Your task to perform on an android device: toggle notification dots Image 0: 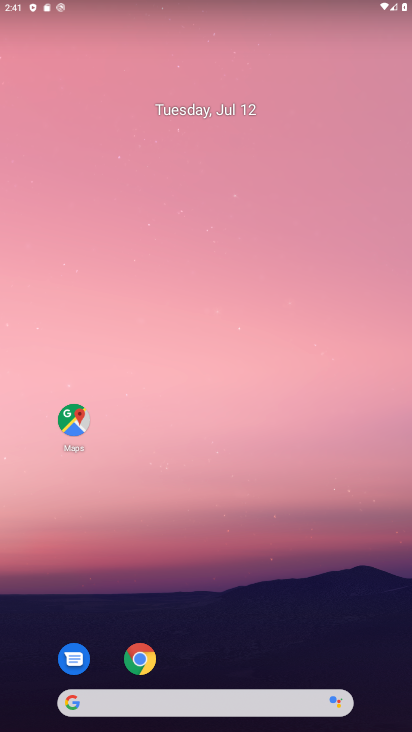
Step 0: drag from (316, 721) to (101, 10)
Your task to perform on an android device: toggle notification dots Image 1: 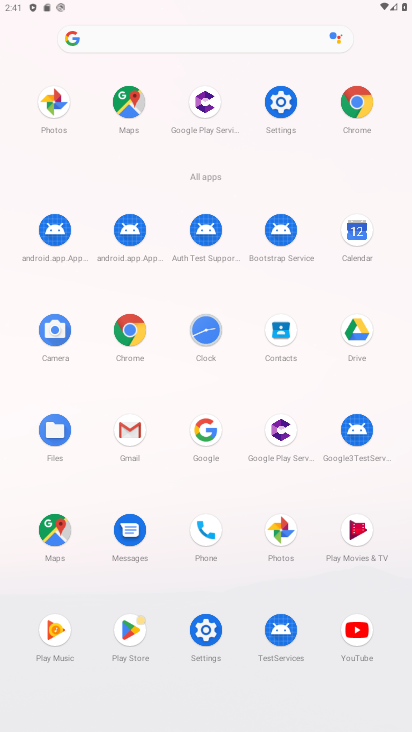
Step 1: click (259, 90)
Your task to perform on an android device: toggle notification dots Image 2: 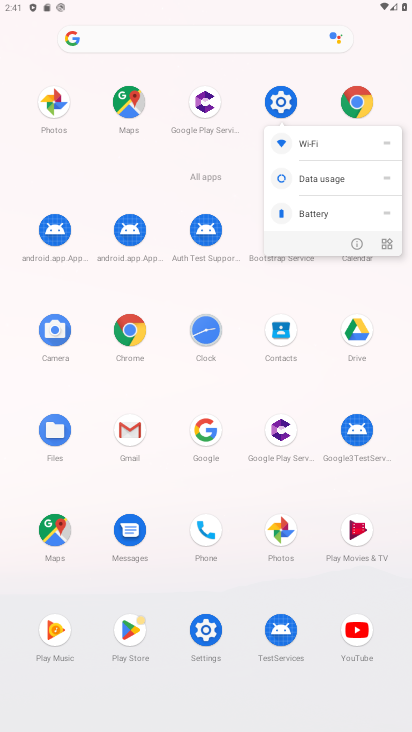
Step 2: click (260, 92)
Your task to perform on an android device: toggle notification dots Image 3: 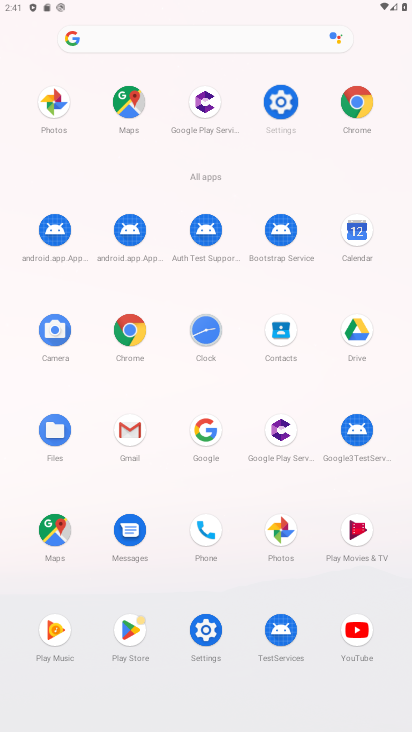
Step 3: click (261, 93)
Your task to perform on an android device: toggle notification dots Image 4: 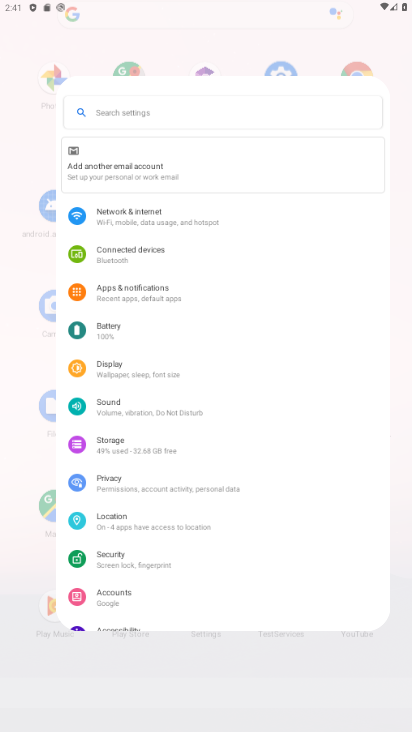
Step 4: click (262, 94)
Your task to perform on an android device: toggle notification dots Image 5: 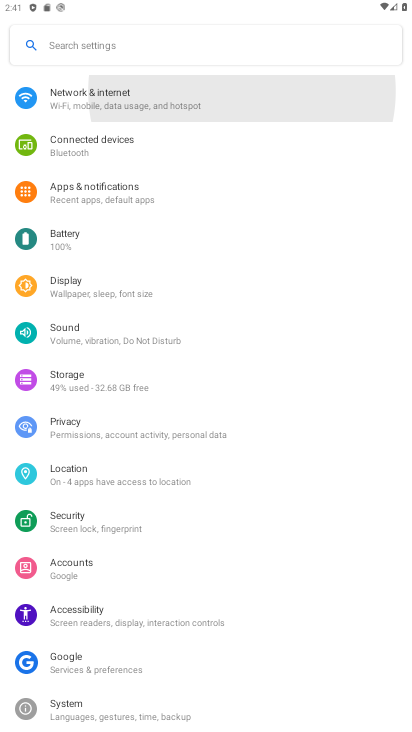
Step 5: click (266, 107)
Your task to perform on an android device: toggle notification dots Image 6: 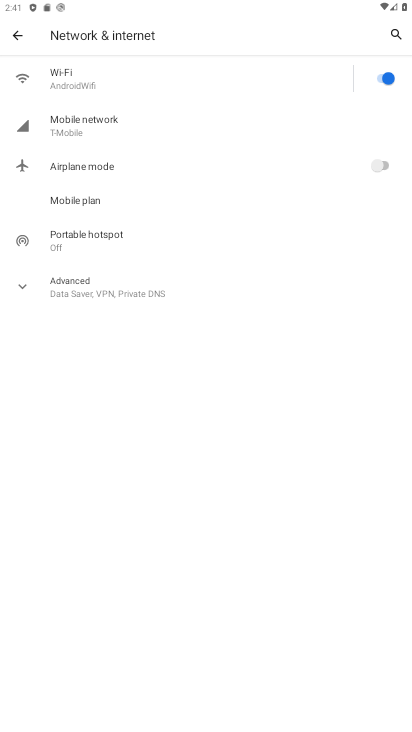
Step 6: click (29, 29)
Your task to perform on an android device: toggle notification dots Image 7: 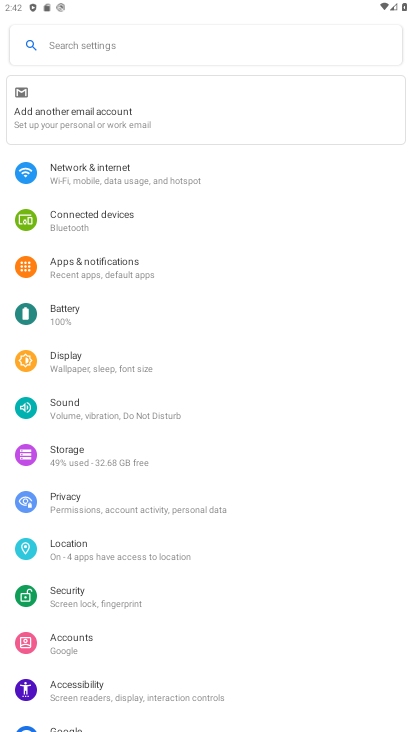
Step 7: click (98, 277)
Your task to perform on an android device: toggle notification dots Image 8: 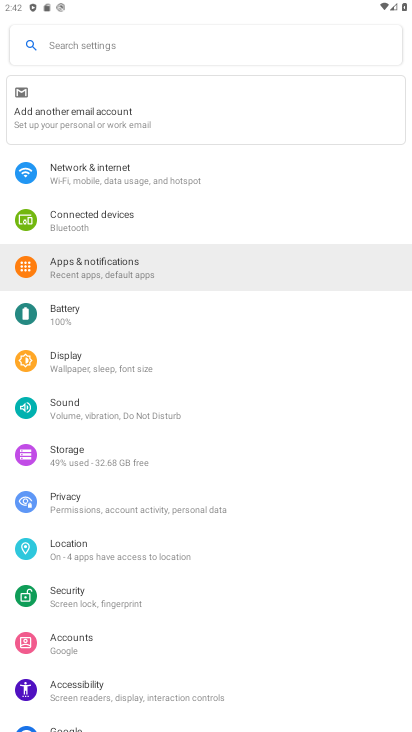
Step 8: click (98, 277)
Your task to perform on an android device: toggle notification dots Image 9: 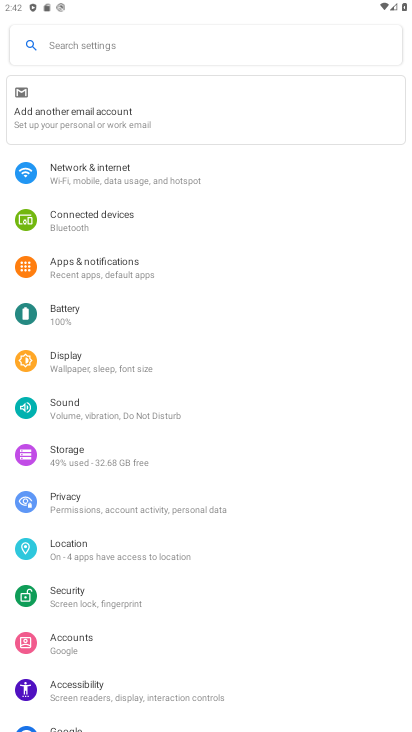
Step 9: click (98, 277)
Your task to perform on an android device: toggle notification dots Image 10: 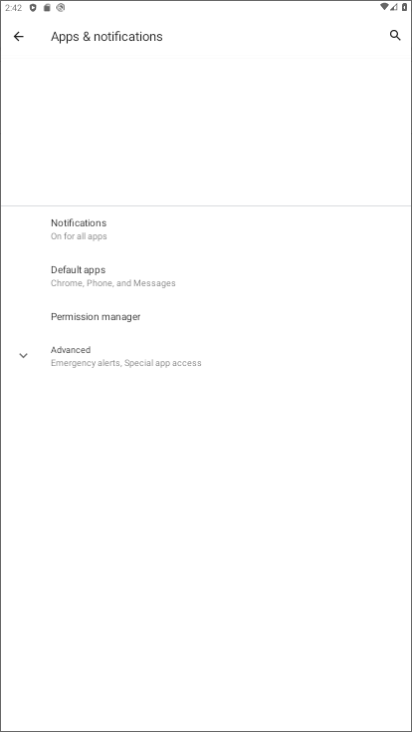
Step 10: click (100, 276)
Your task to perform on an android device: toggle notification dots Image 11: 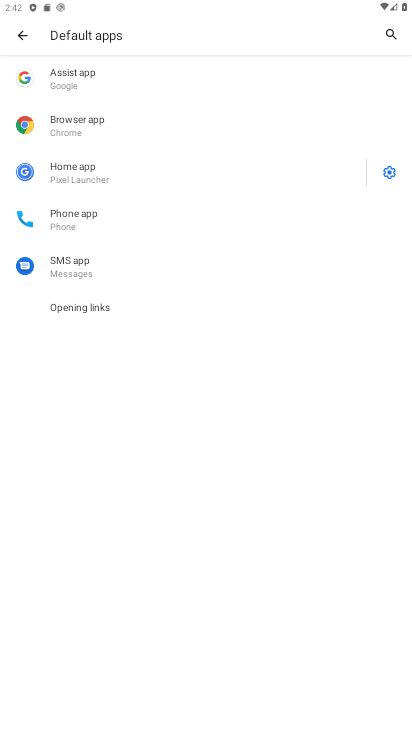
Step 11: click (27, 31)
Your task to perform on an android device: toggle notification dots Image 12: 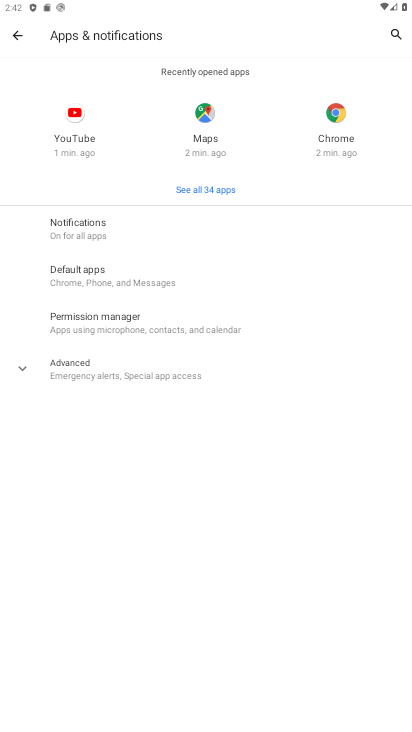
Step 12: click (85, 370)
Your task to perform on an android device: toggle notification dots Image 13: 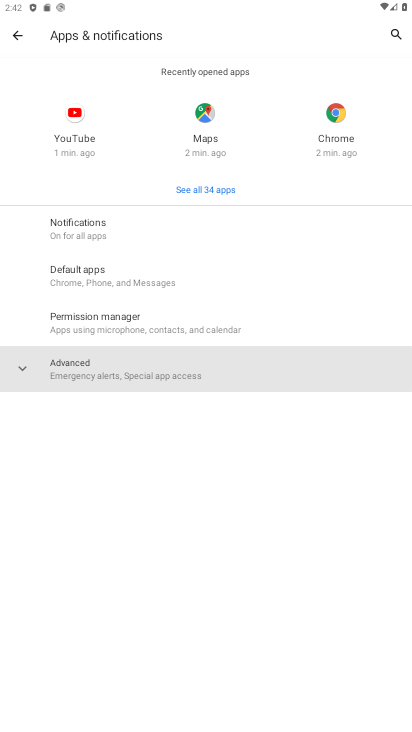
Step 13: click (85, 370)
Your task to perform on an android device: toggle notification dots Image 14: 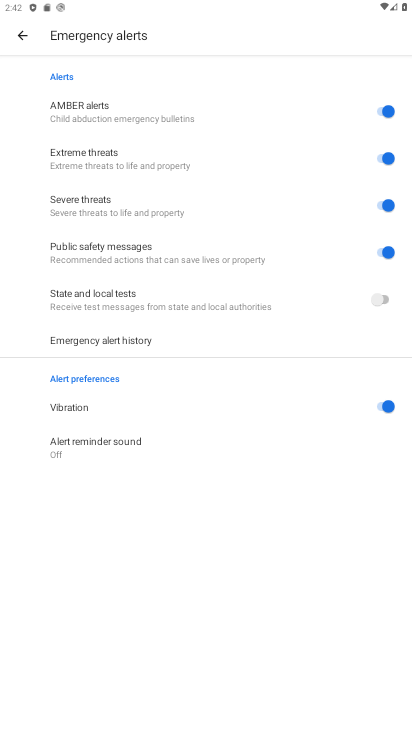
Step 14: click (16, 36)
Your task to perform on an android device: toggle notification dots Image 15: 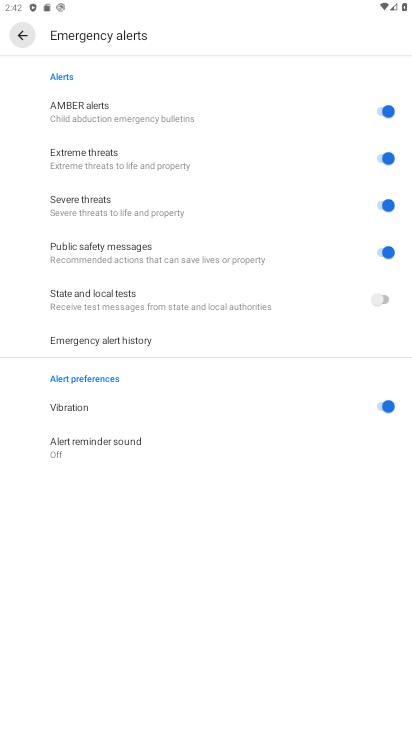
Step 15: click (23, 54)
Your task to perform on an android device: toggle notification dots Image 16: 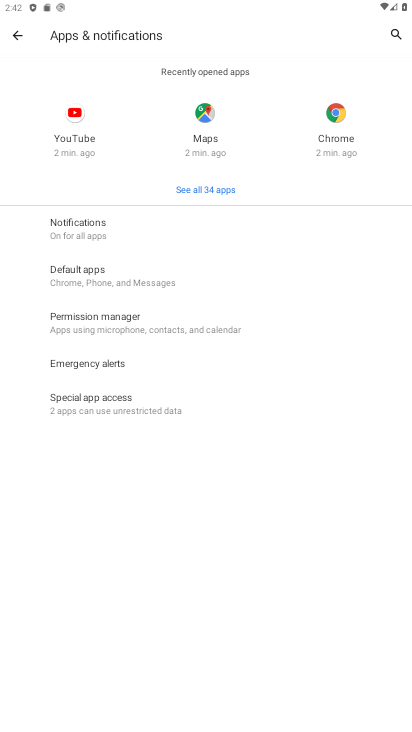
Step 16: click (85, 226)
Your task to perform on an android device: toggle notification dots Image 17: 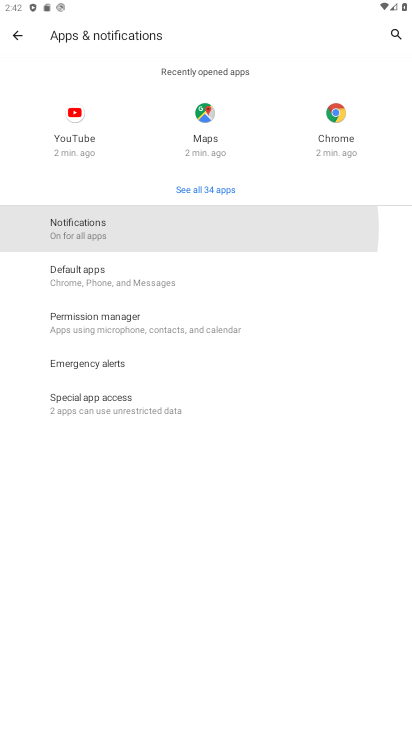
Step 17: click (84, 226)
Your task to perform on an android device: toggle notification dots Image 18: 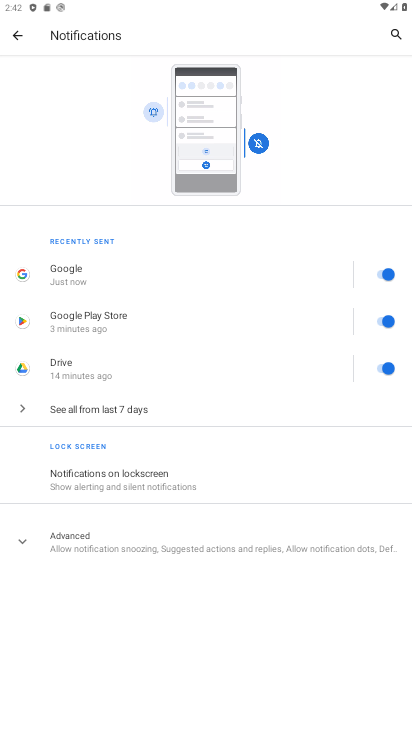
Step 18: click (69, 527)
Your task to perform on an android device: toggle notification dots Image 19: 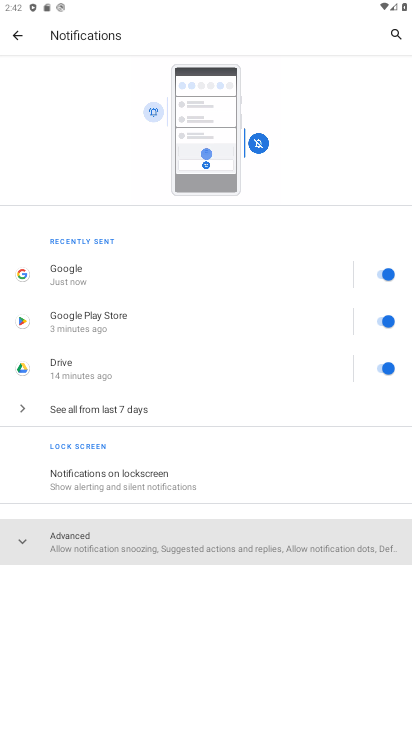
Step 19: click (69, 527)
Your task to perform on an android device: toggle notification dots Image 20: 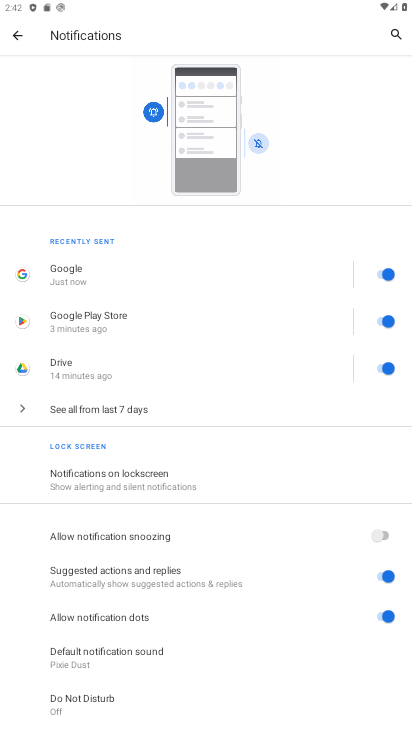
Step 20: drag from (153, 538) to (93, 134)
Your task to perform on an android device: toggle notification dots Image 21: 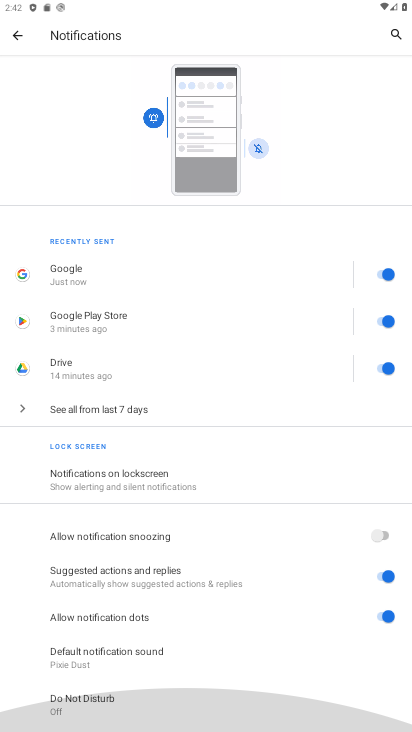
Step 21: drag from (176, 551) to (170, 314)
Your task to perform on an android device: toggle notification dots Image 22: 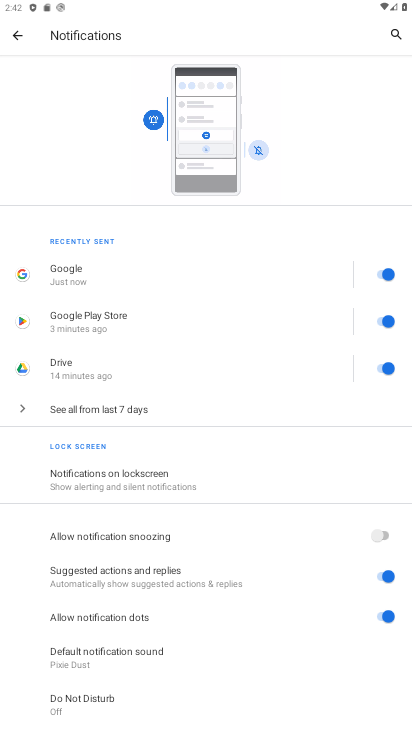
Step 22: click (388, 614)
Your task to perform on an android device: toggle notification dots Image 23: 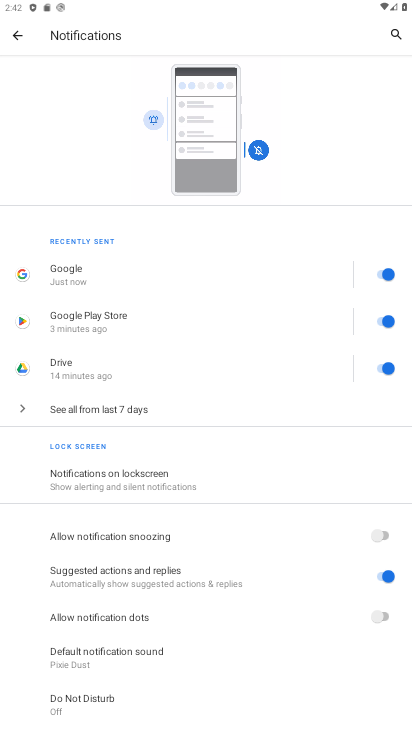
Step 23: task complete